Your task to perform on an android device: Open the web browser Image 0: 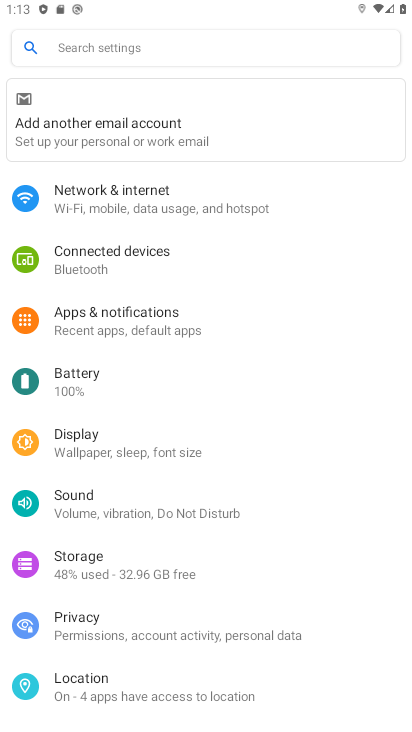
Step 0: press home button
Your task to perform on an android device: Open the web browser Image 1: 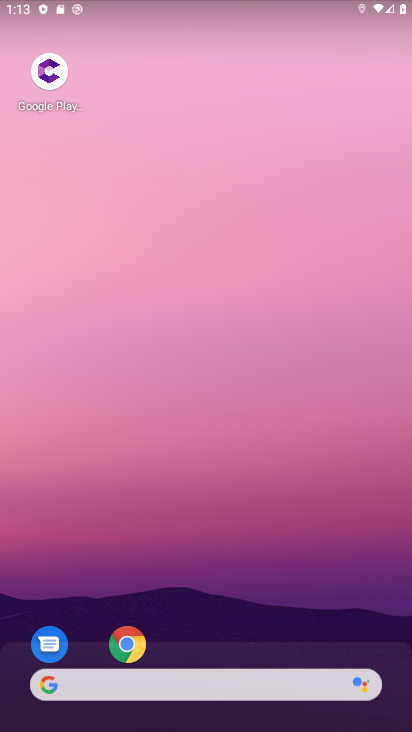
Step 1: click (128, 643)
Your task to perform on an android device: Open the web browser Image 2: 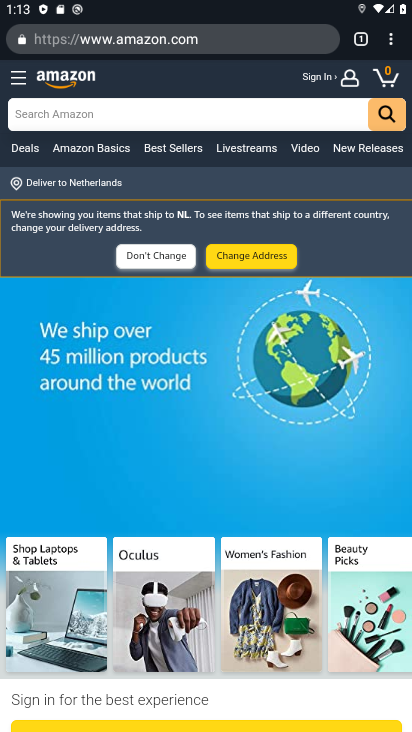
Step 2: task complete